Your task to perform on an android device: move a message to another label in the gmail app Image 0: 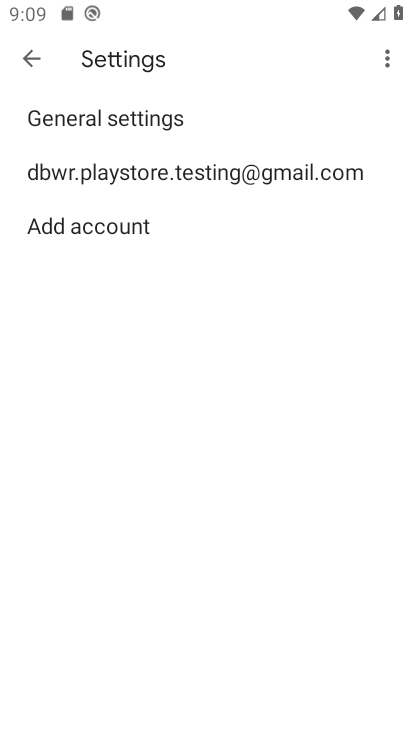
Step 0: press home button
Your task to perform on an android device: move a message to another label in the gmail app Image 1: 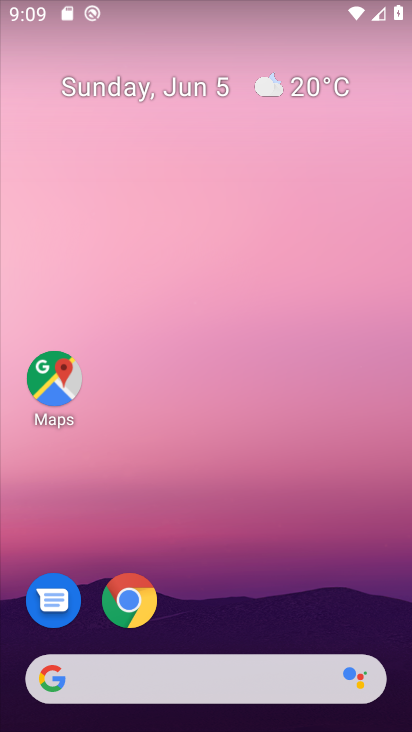
Step 1: drag from (212, 498) to (200, 43)
Your task to perform on an android device: move a message to another label in the gmail app Image 2: 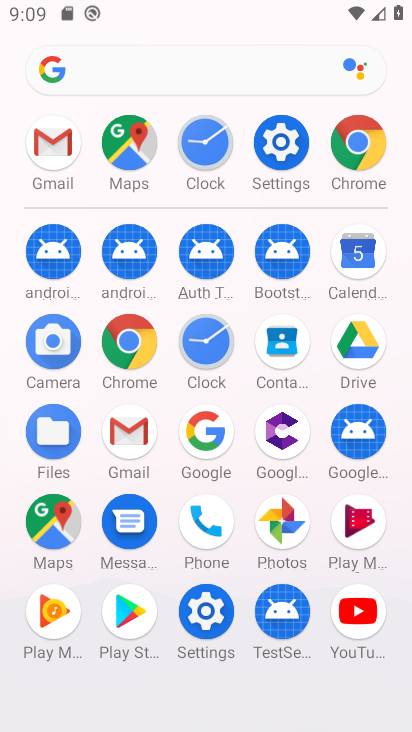
Step 2: click (53, 143)
Your task to perform on an android device: move a message to another label in the gmail app Image 3: 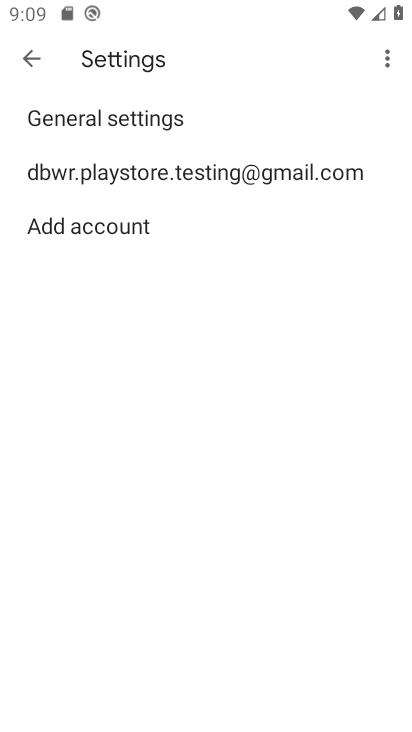
Step 3: click (30, 56)
Your task to perform on an android device: move a message to another label in the gmail app Image 4: 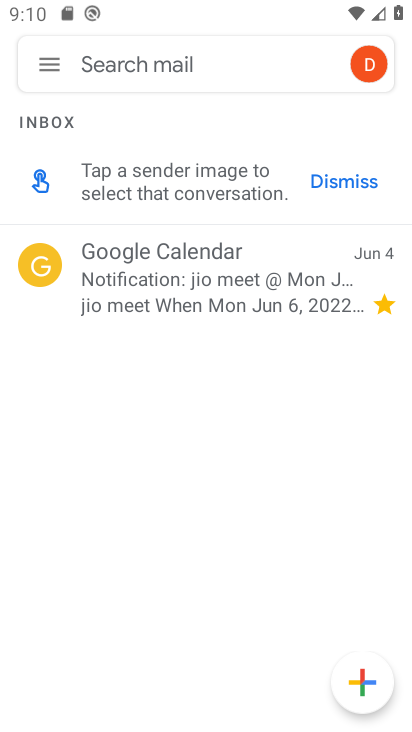
Step 4: click (208, 280)
Your task to perform on an android device: move a message to another label in the gmail app Image 5: 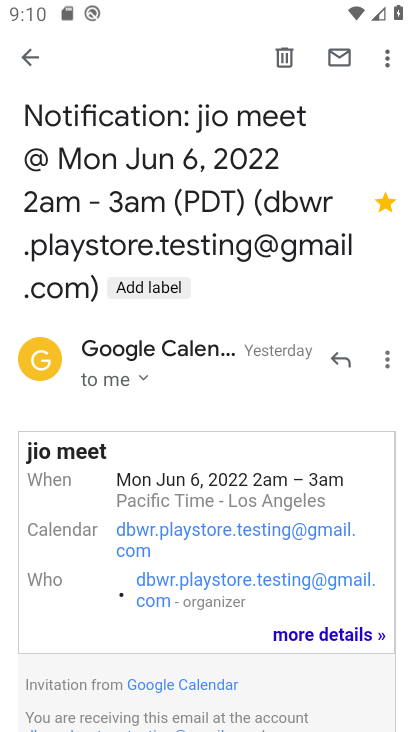
Step 5: click (384, 63)
Your task to perform on an android device: move a message to another label in the gmail app Image 6: 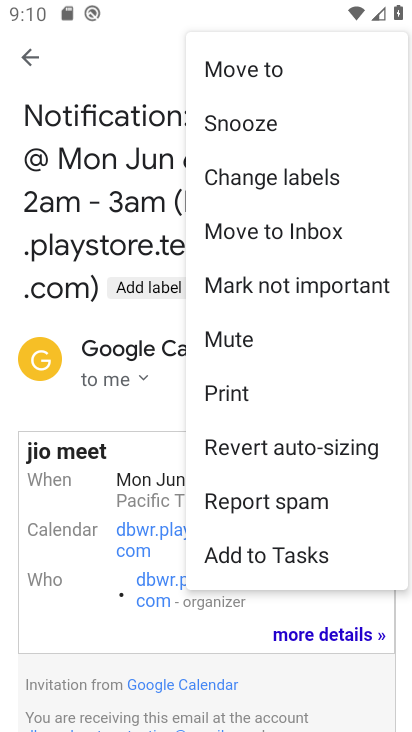
Step 6: click (294, 172)
Your task to perform on an android device: move a message to another label in the gmail app Image 7: 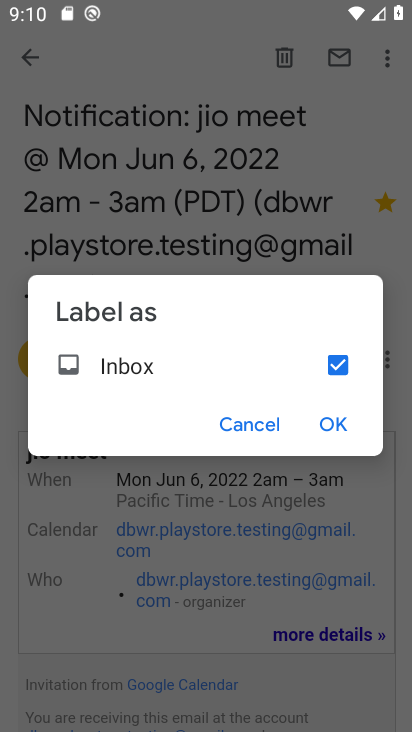
Step 7: click (335, 362)
Your task to perform on an android device: move a message to another label in the gmail app Image 8: 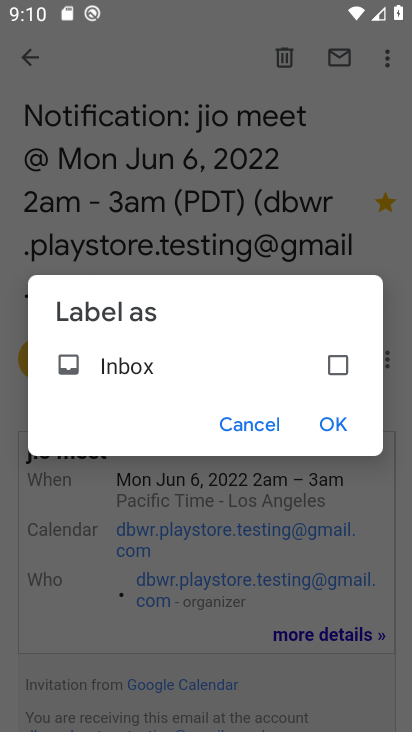
Step 8: click (332, 412)
Your task to perform on an android device: move a message to another label in the gmail app Image 9: 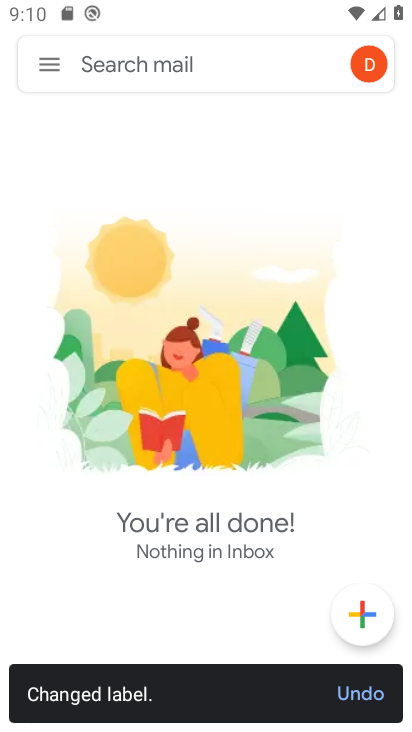
Step 9: task complete